Your task to perform on an android device: Open accessibility settings Image 0: 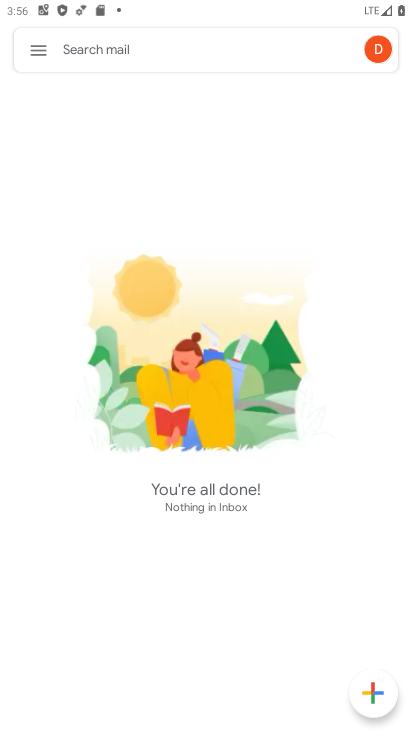
Step 0: press back button
Your task to perform on an android device: Open accessibility settings Image 1: 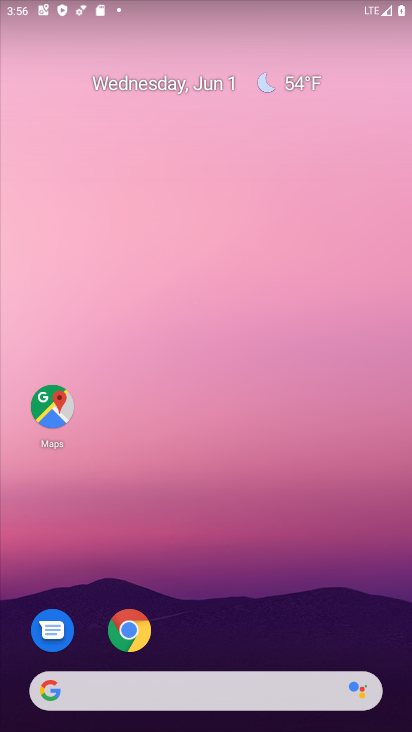
Step 1: drag from (247, 575) to (241, 36)
Your task to perform on an android device: Open accessibility settings Image 2: 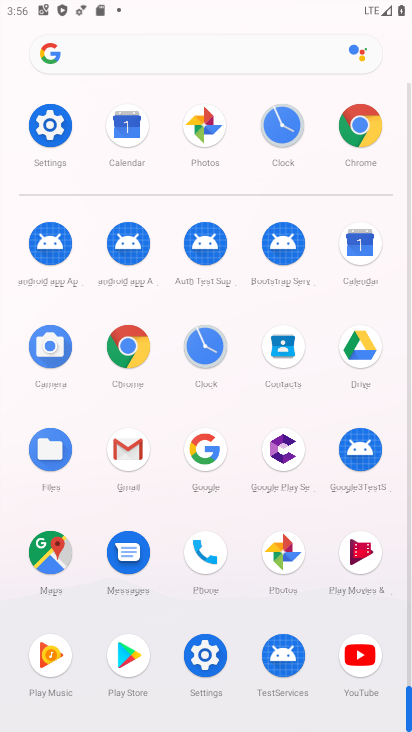
Step 2: click (205, 652)
Your task to perform on an android device: Open accessibility settings Image 3: 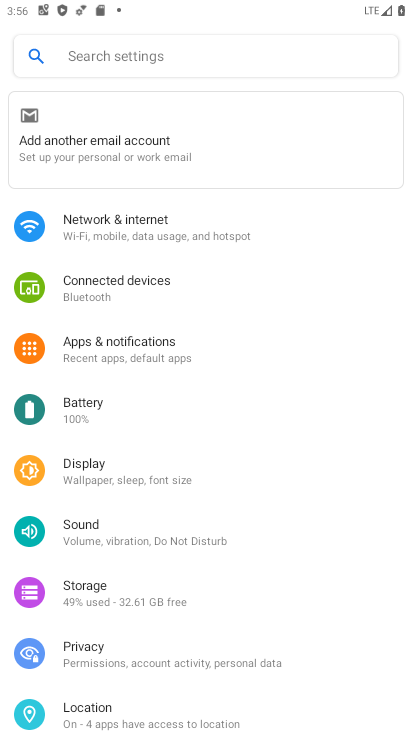
Step 3: drag from (320, 598) to (318, 198)
Your task to perform on an android device: Open accessibility settings Image 4: 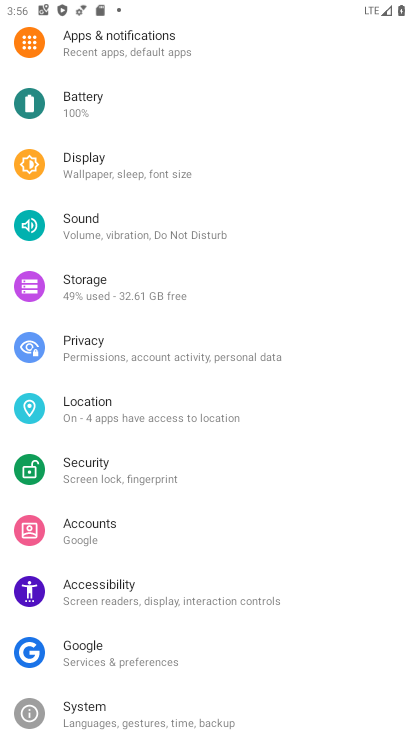
Step 4: drag from (280, 589) to (287, 132)
Your task to perform on an android device: Open accessibility settings Image 5: 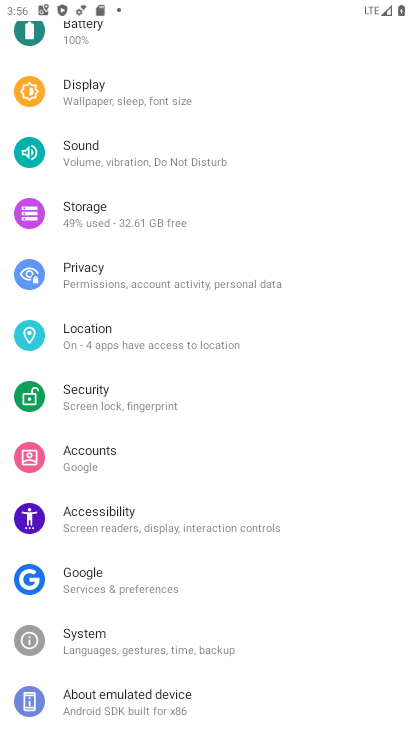
Step 5: click (157, 526)
Your task to perform on an android device: Open accessibility settings Image 6: 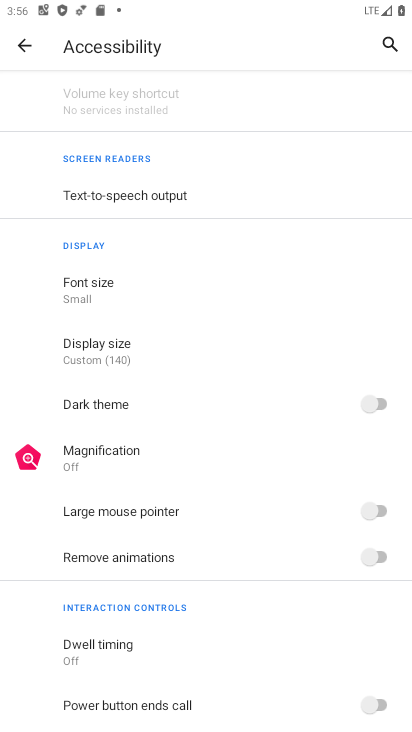
Step 6: task complete